Your task to perform on an android device: turn off picture-in-picture Image 0: 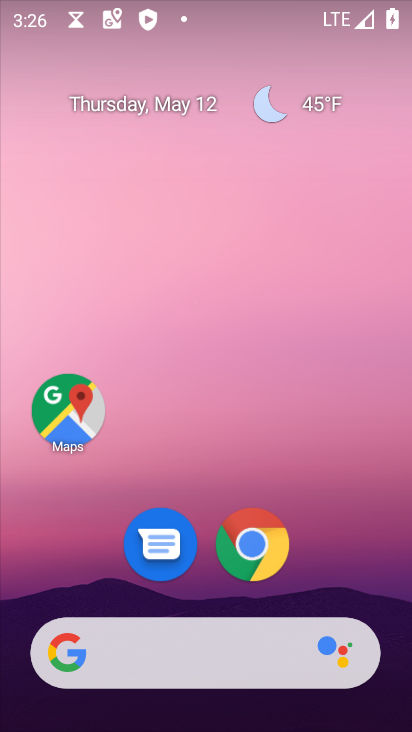
Step 0: click (259, 545)
Your task to perform on an android device: turn off picture-in-picture Image 1: 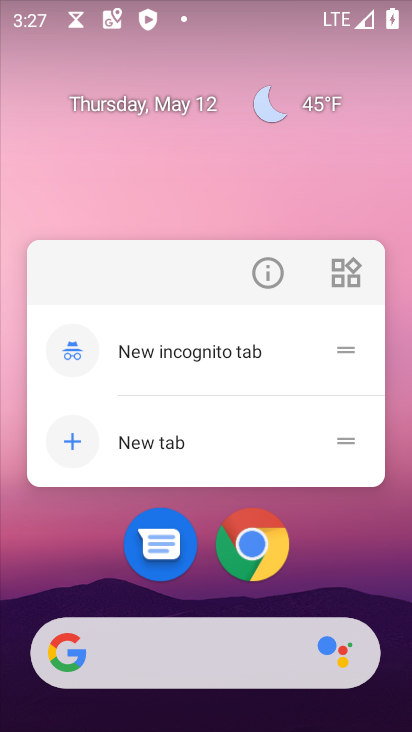
Step 1: click (267, 280)
Your task to perform on an android device: turn off picture-in-picture Image 2: 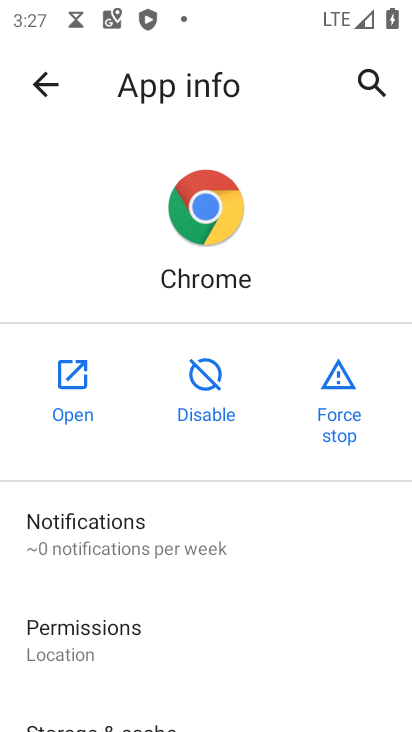
Step 2: drag from (127, 580) to (109, 191)
Your task to perform on an android device: turn off picture-in-picture Image 3: 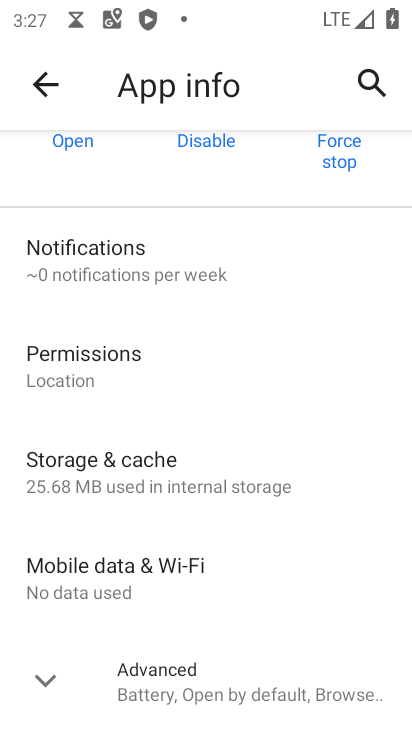
Step 3: click (131, 669)
Your task to perform on an android device: turn off picture-in-picture Image 4: 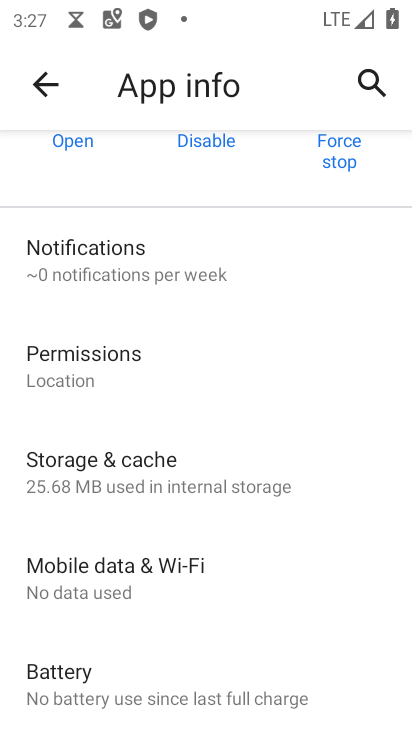
Step 4: drag from (100, 665) to (98, 220)
Your task to perform on an android device: turn off picture-in-picture Image 5: 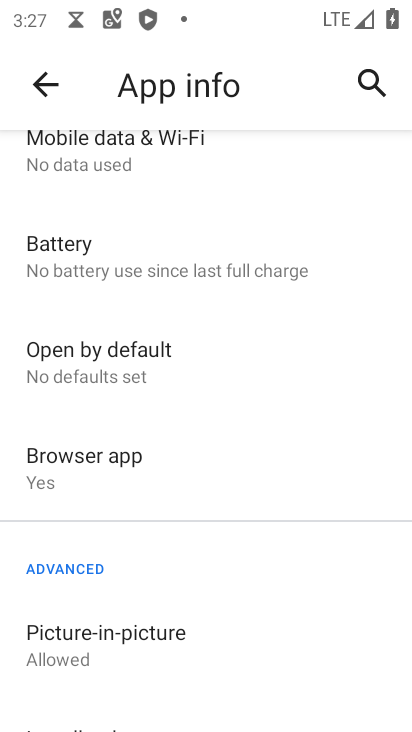
Step 5: click (125, 628)
Your task to perform on an android device: turn off picture-in-picture Image 6: 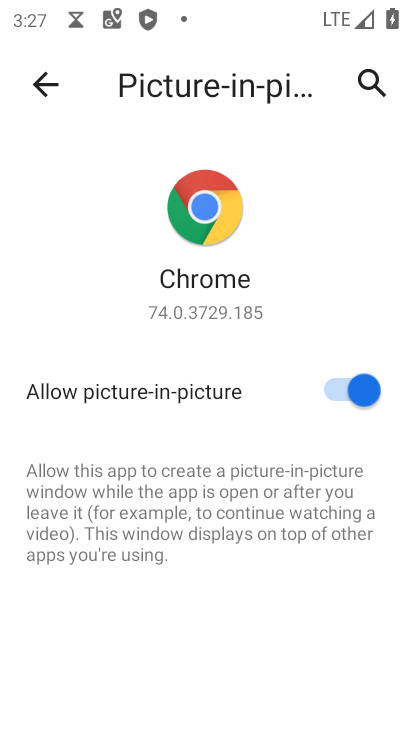
Step 6: click (336, 403)
Your task to perform on an android device: turn off picture-in-picture Image 7: 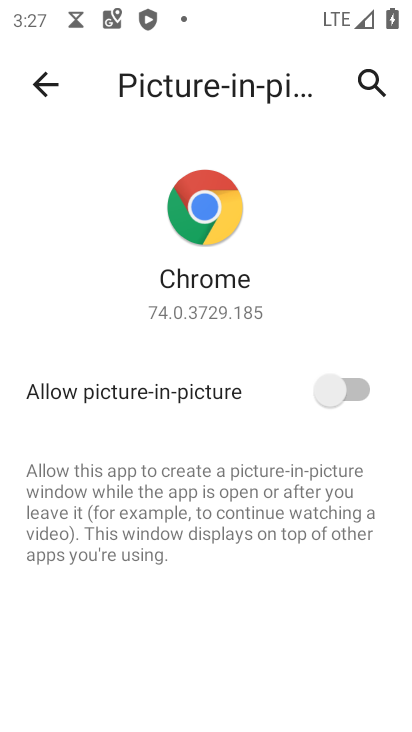
Step 7: task complete